Your task to perform on an android device: Go to eBay Image 0: 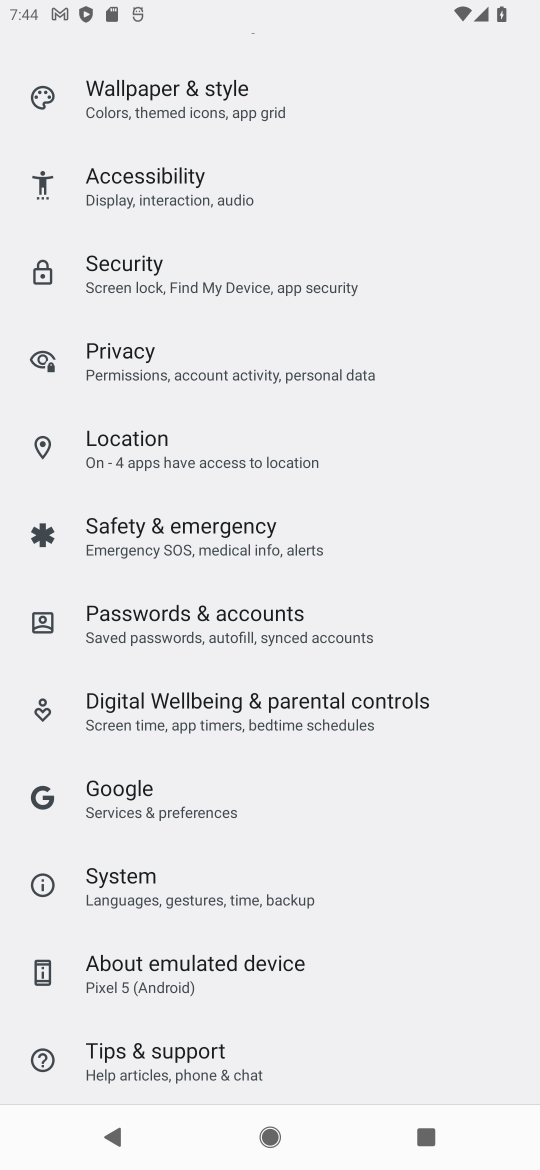
Step 0: press home button
Your task to perform on an android device: Go to eBay Image 1: 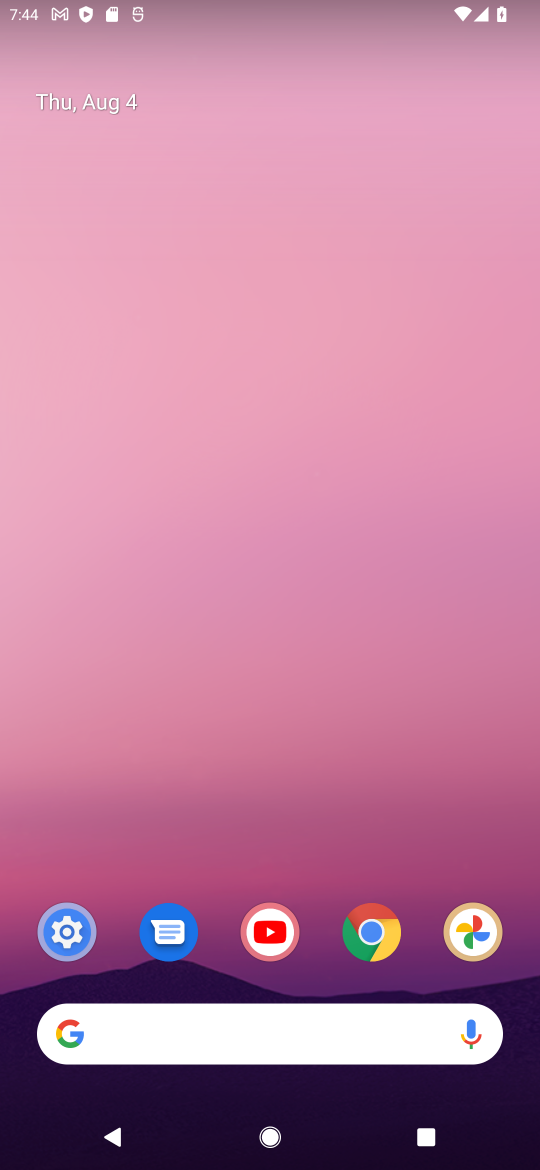
Step 1: click (380, 933)
Your task to perform on an android device: Go to eBay Image 2: 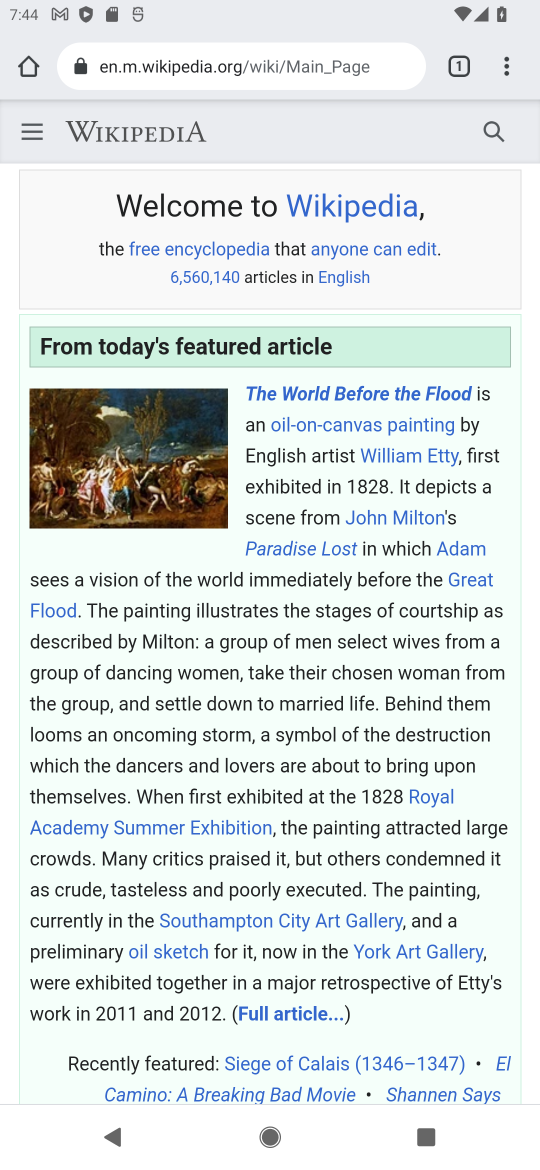
Step 2: click (244, 58)
Your task to perform on an android device: Go to eBay Image 3: 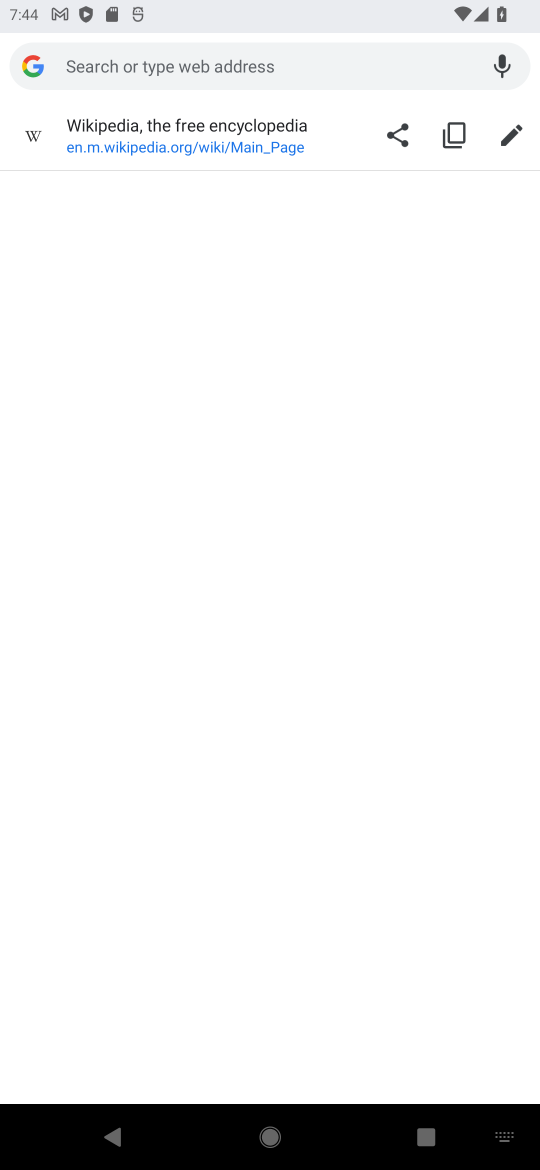
Step 3: type "ebay"
Your task to perform on an android device: Go to eBay Image 4: 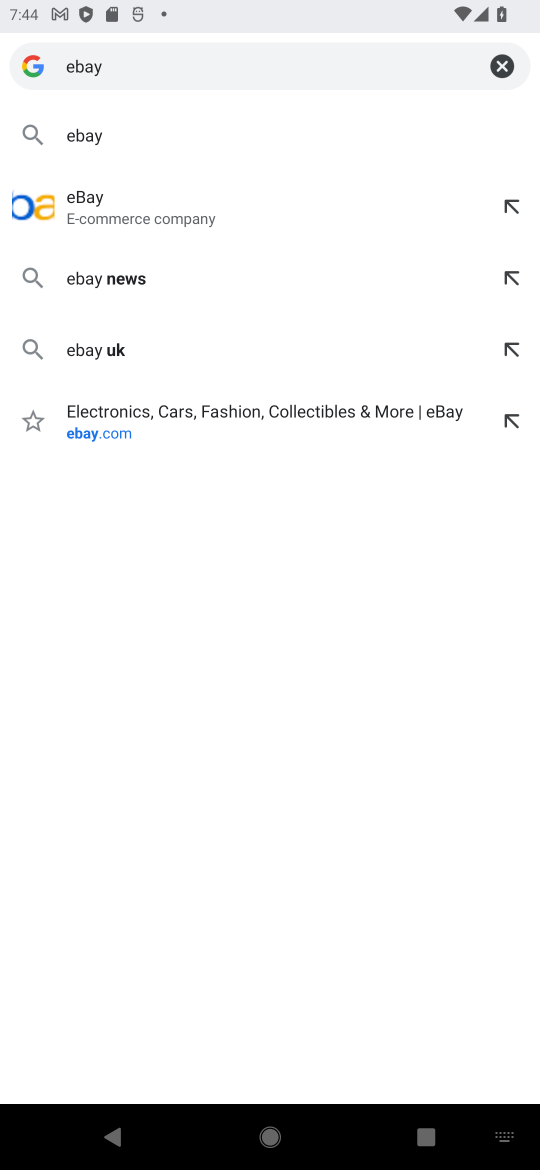
Step 4: click (207, 198)
Your task to perform on an android device: Go to eBay Image 5: 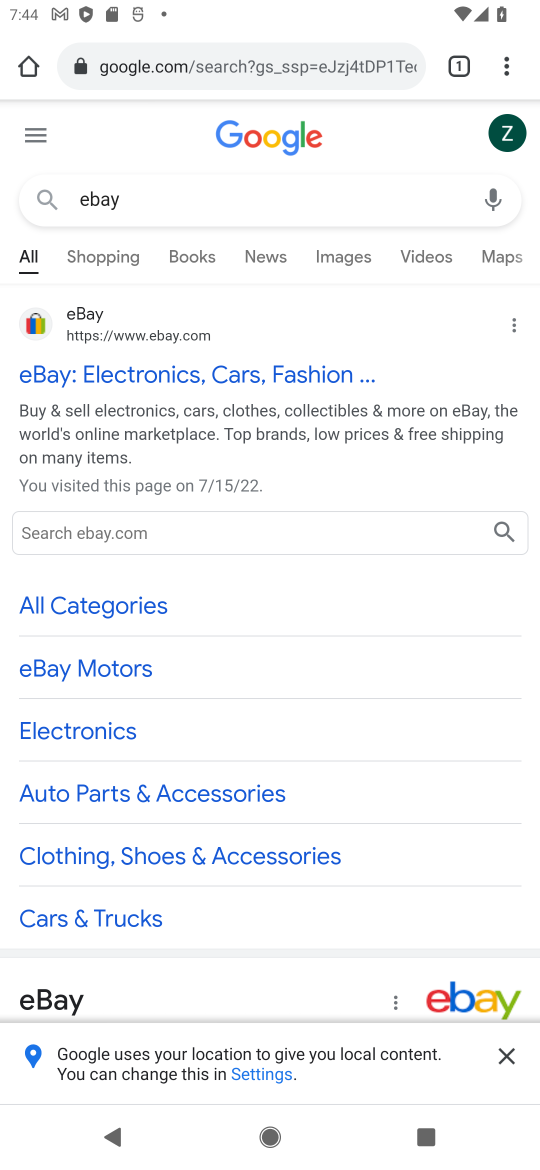
Step 5: click (214, 369)
Your task to perform on an android device: Go to eBay Image 6: 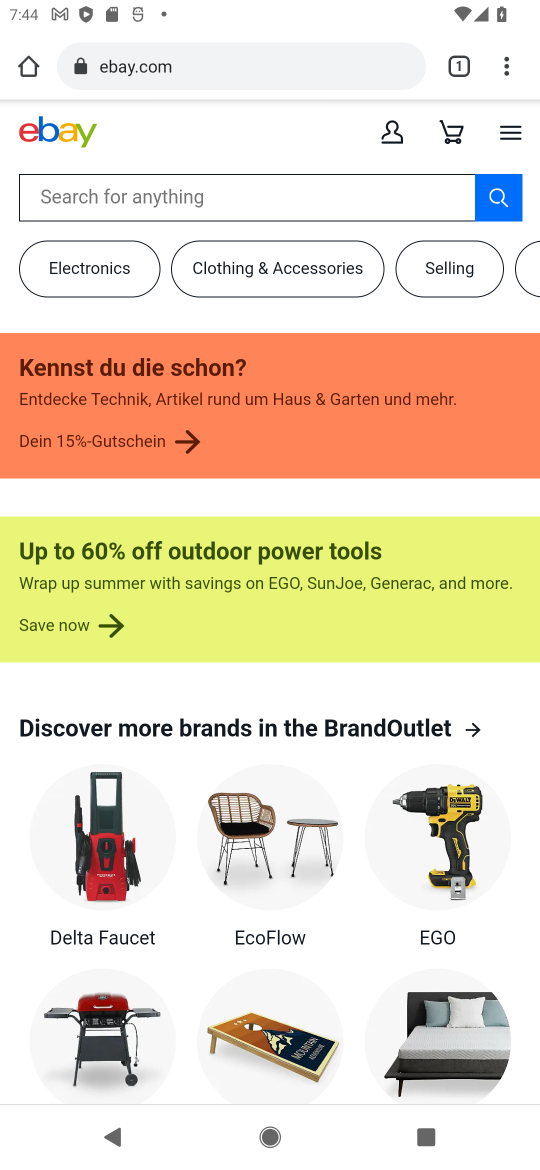
Step 6: task complete